Your task to perform on an android device: create a new album in the google photos Image 0: 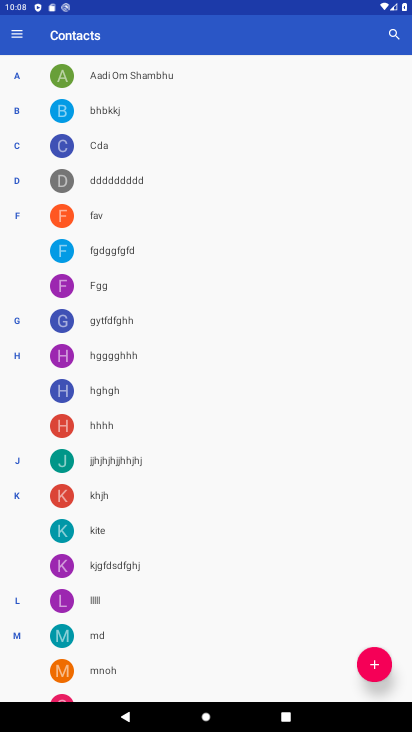
Step 0: press home button
Your task to perform on an android device: create a new album in the google photos Image 1: 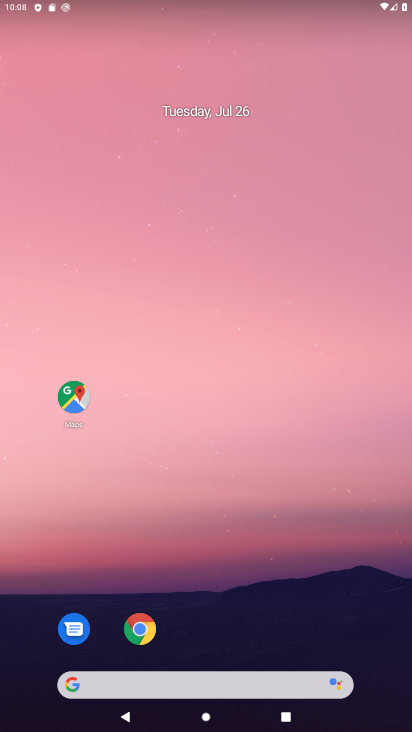
Step 1: drag from (297, 664) to (266, 12)
Your task to perform on an android device: create a new album in the google photos Image 2: 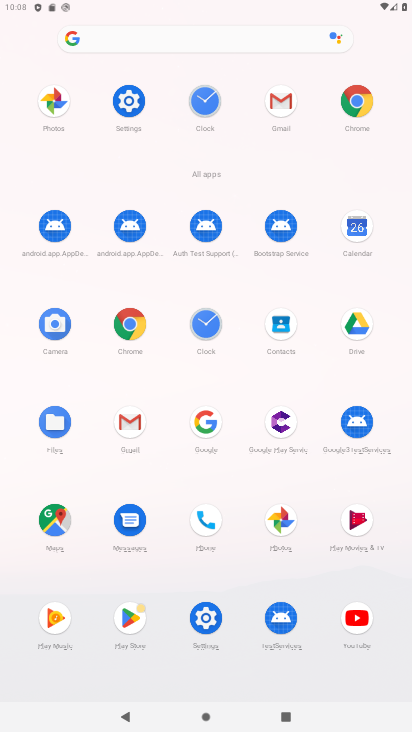
Step 2: click (63, 125)
Your task to perform on an android device: create a new album in the google photos Image 3: 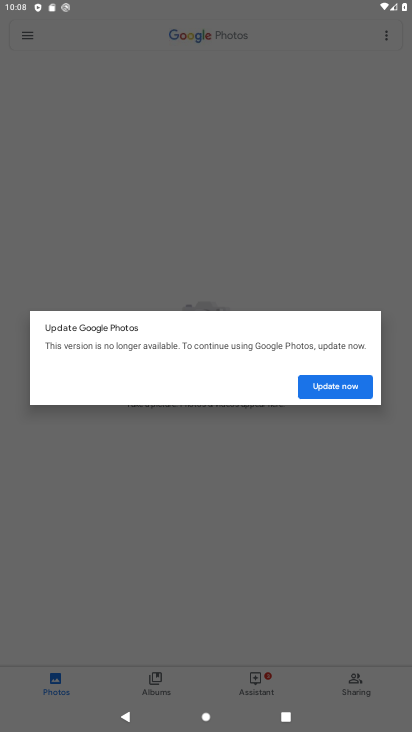
Step 3: press home button
Your task to perform on an android device: create a new album in the google photos Image 4: 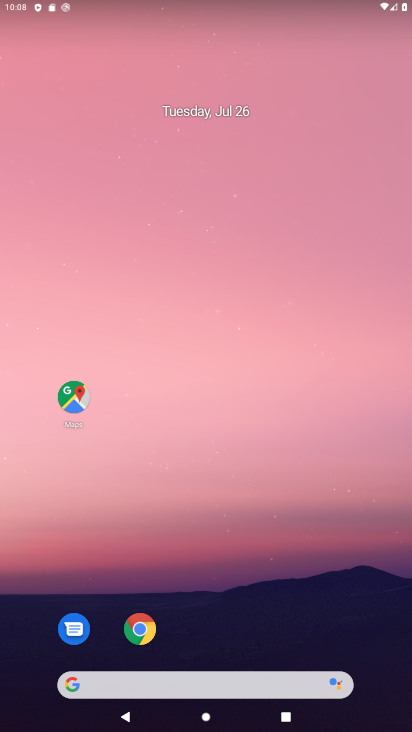
Step 4: drag from (253, 664) to (148, 186)
Your task to perform on an android device: create a new album in the google photos Image 5: 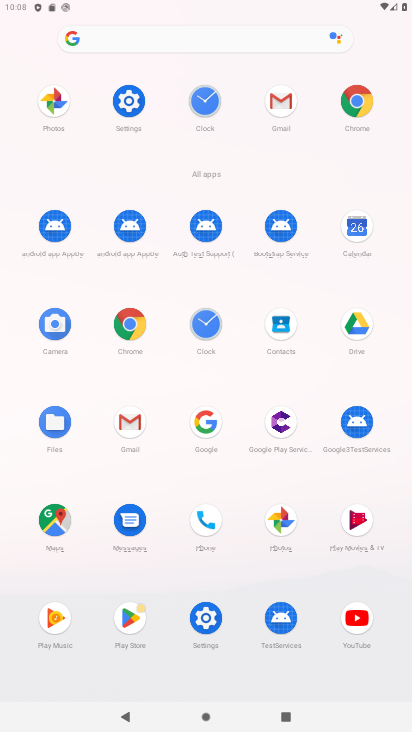
Step 5: click (40, 116)
Your task to perform on an android device: create a new album in the google photos Image 6: 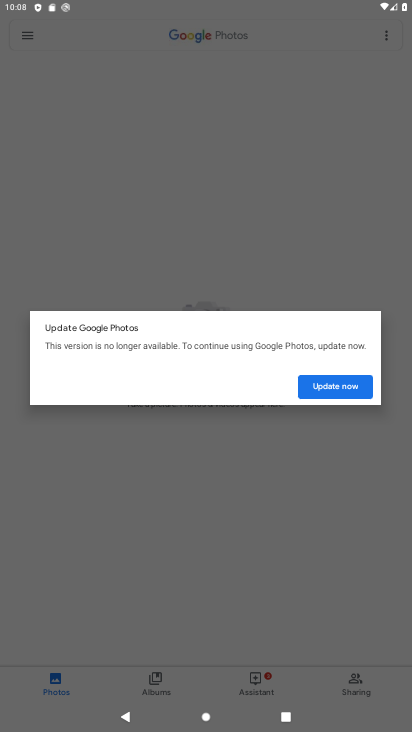
Step 6: task complete